Your task to perform on an android device: Go to Google Image 0: 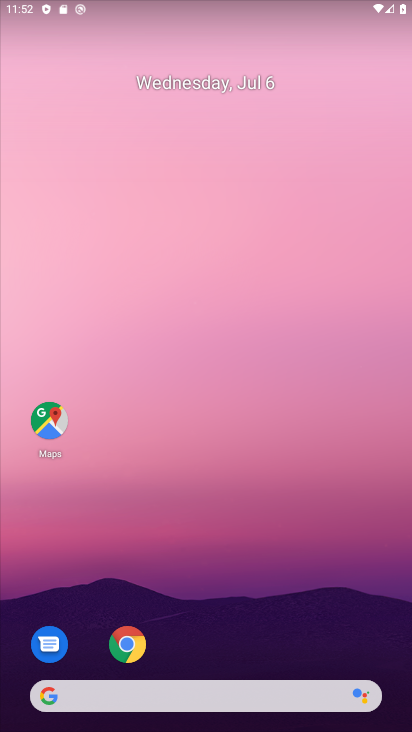
Step 0: drag from (198, 696) to (207, 116)
Your task to perform on an android device: Go to Google Image 1: 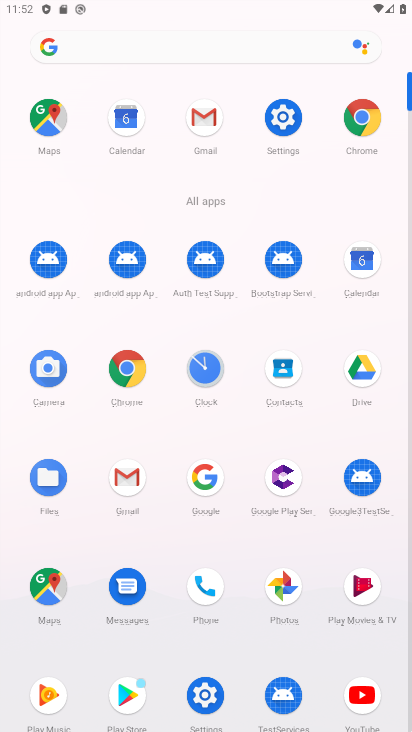
Step 1: click (206, 485)
Your task to perform on an android device: Go to Google Image 2: 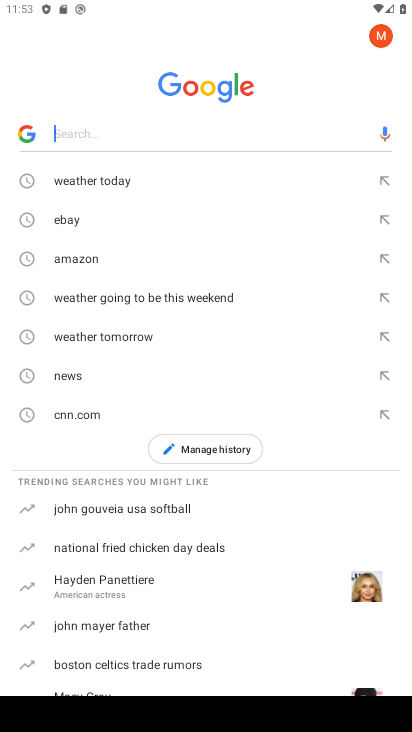
Step 2: task complete